Your task to perform on an android device: When is my next meeting? Image 0: 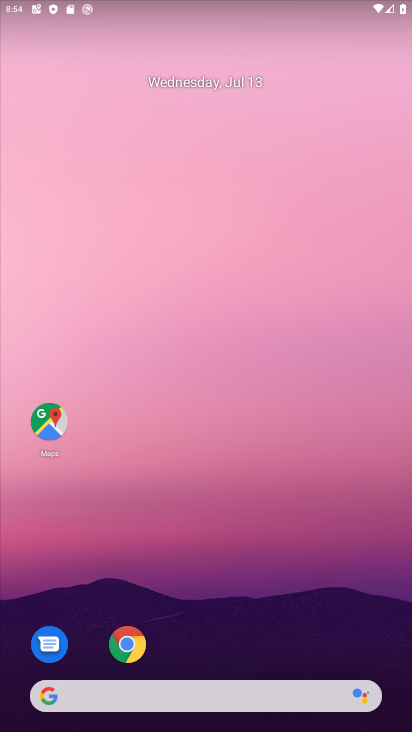
Step 0: drag from (220, 716) to (219, 597)
Your task to perform on an android device: When is my next meeting? Image 1: 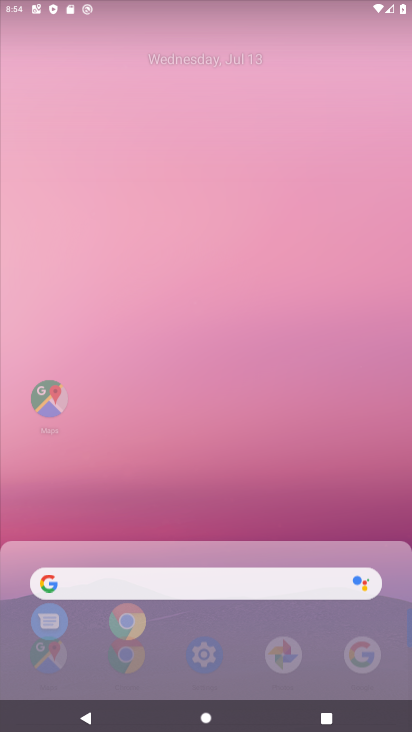
Step 1: click (201, 172)
Your task to perform on an android device: When is my next meeting? Image 2: 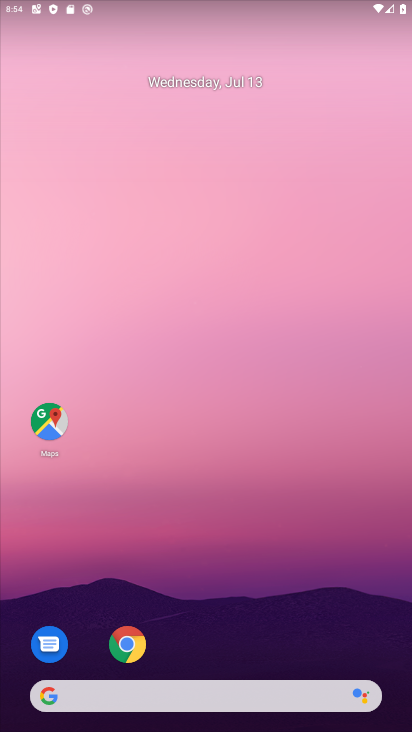
Step 2: drag from (248, 729) to (227, 172)
Your task to perform on an android device: When is my next meeting? Image 3: 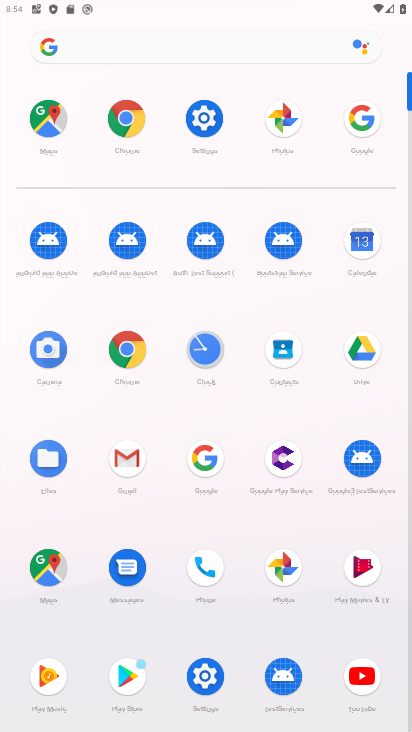
Step 3: click (362, 245)
Your task to perform on an android device: When is my next meeting? Image 4: 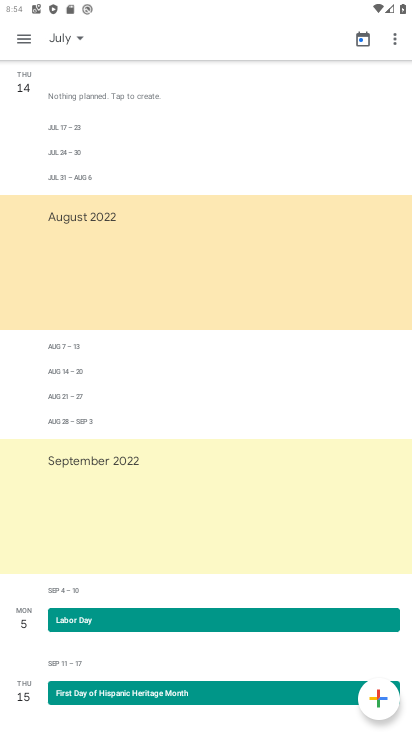
Step 4: click (79, 38)
Your task to perform on an android device: When is my next meeting? Image 5: 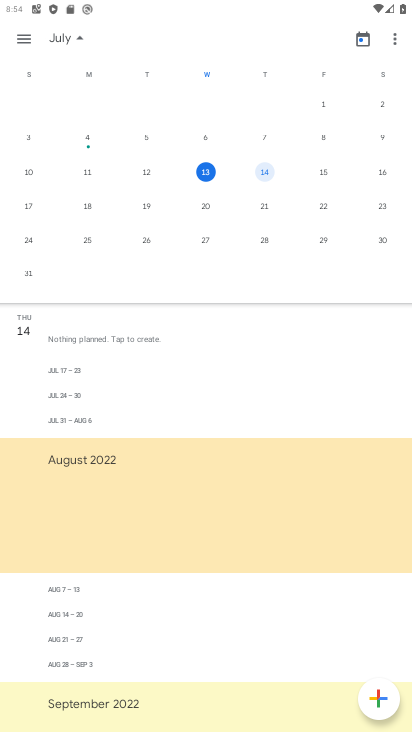
Step 5: click (264, 170)
Your task to perform on an android device: When is my next meeting? Image 6: 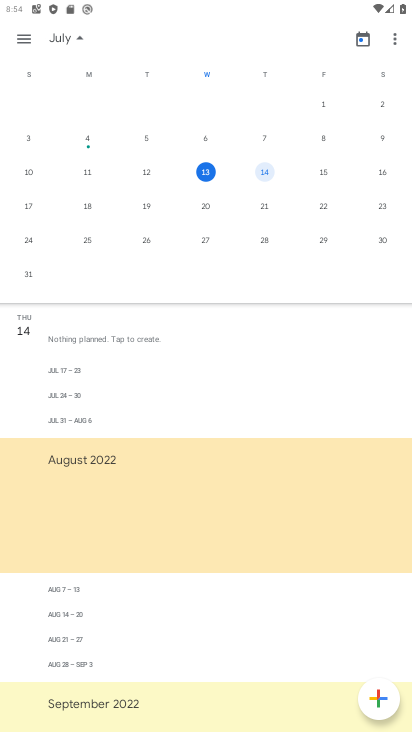
Step 6: click (264, 170)
Your task to perform on an android device: When is my next meeting? Image 7: 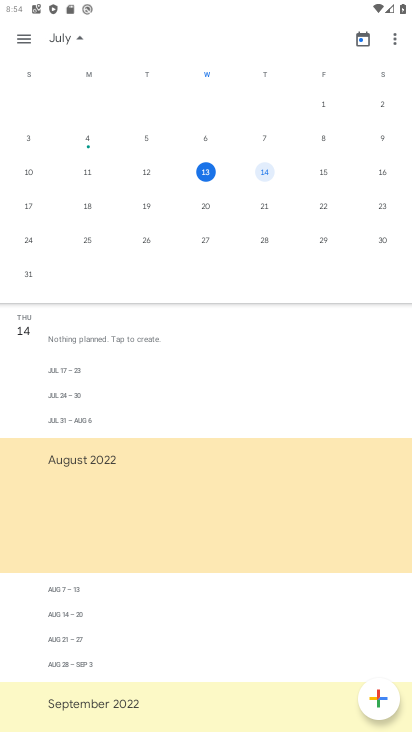
Step 7: click (27, 318)
Your task to perform on an android device: When is my next meeting? Image 8: 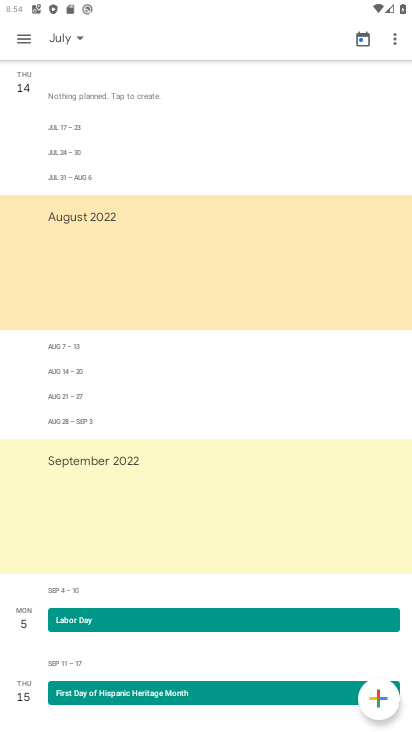
Step 8: task complete